Your task to perform on an android device: add a label to a message in the gmail app Image 0: 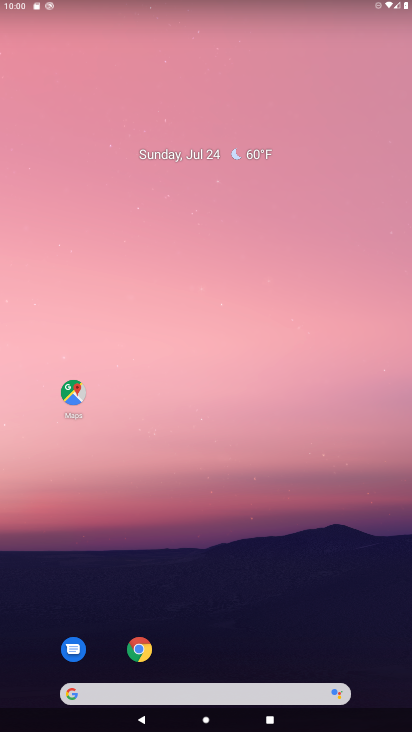
Step 0: drag from (350, 666) to (333, 129)
Your task to perform on an android device: add a label to a message in the gmail app Image 1: 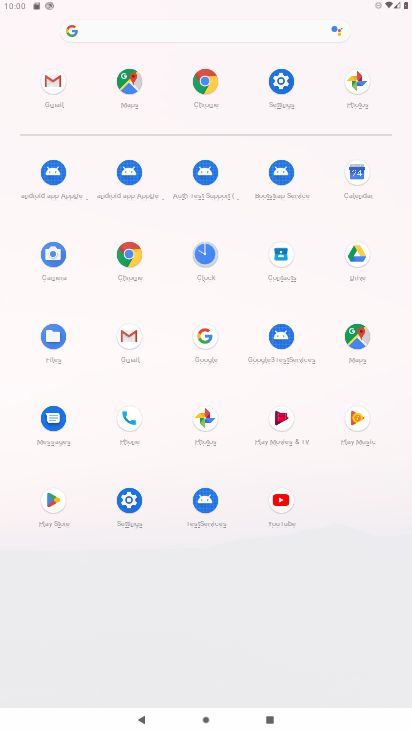
Step 1: click (125, 341)
Your task to perform on an android device: add a label to a message in the gmail app Image 2: 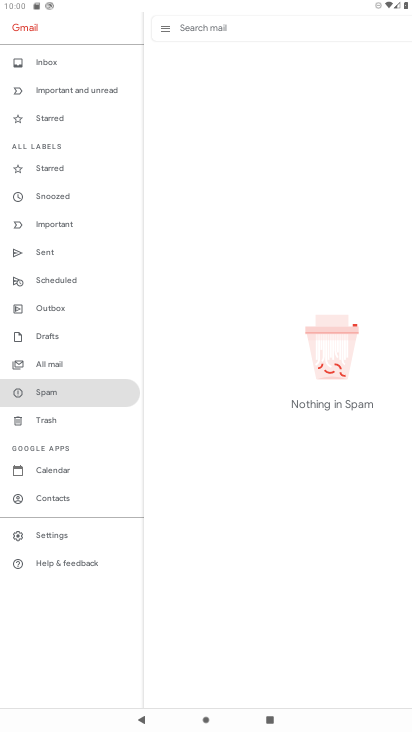
Step 2: click (41, 58)
Your task to perform on an android device: add a label to a message in the gmail app Image 3: 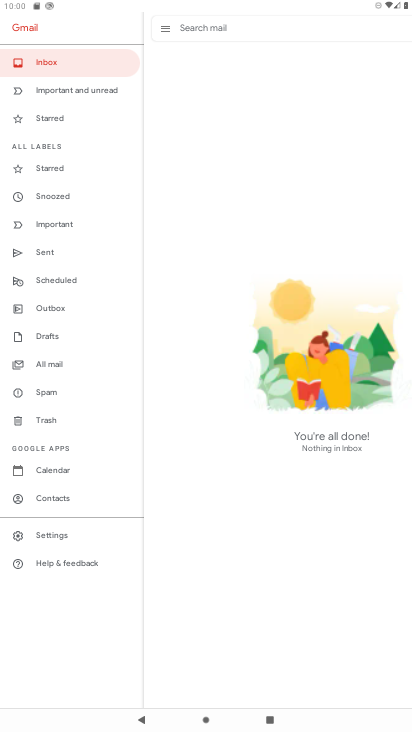
Step 3: click (36, 361)
Your task to perform on an android device: add a label to a message in the gmail app Image 4: 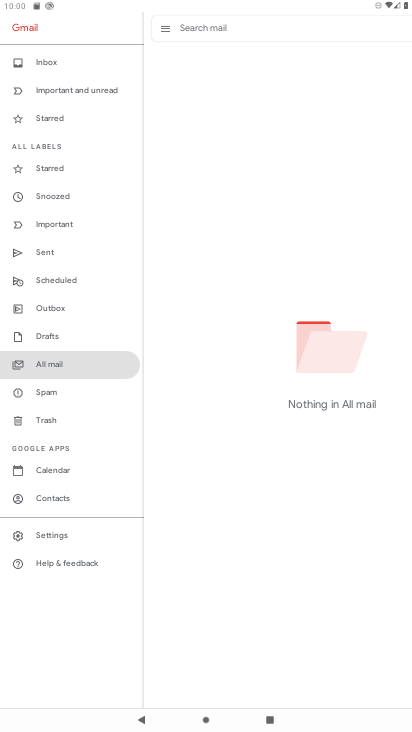
Step 4: task complete